Your task to perform on an android device: manage bookmarks in the chrome app Image 0: 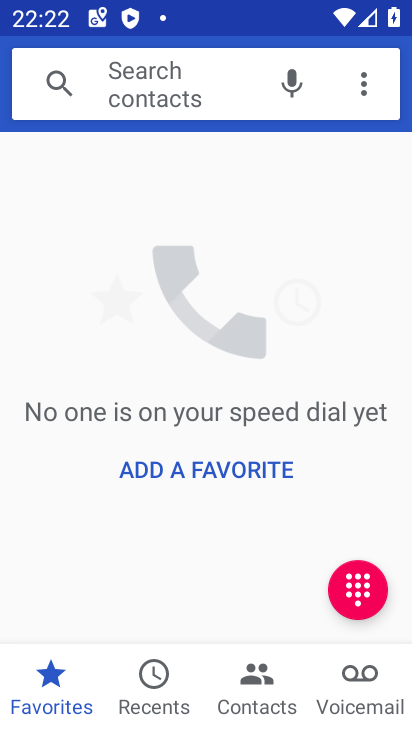
Step 0: press home button
Your task to perform on an android device: manage bookmarks in the chrome app Image 1: 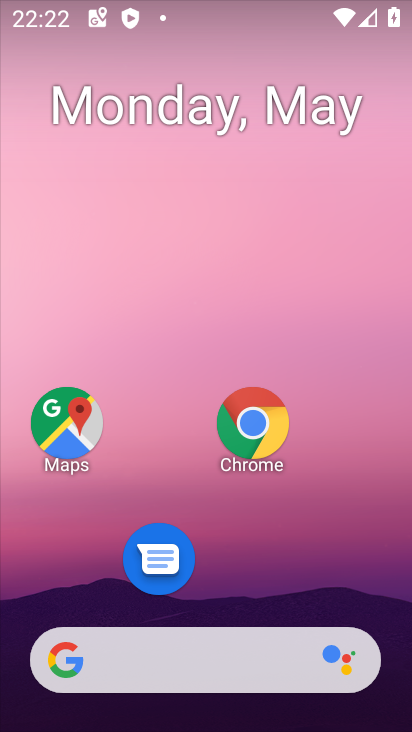
Step 1: click (249, 413)
Your task to perform on an android device: manage bookmarks in the chrome app Image 2: 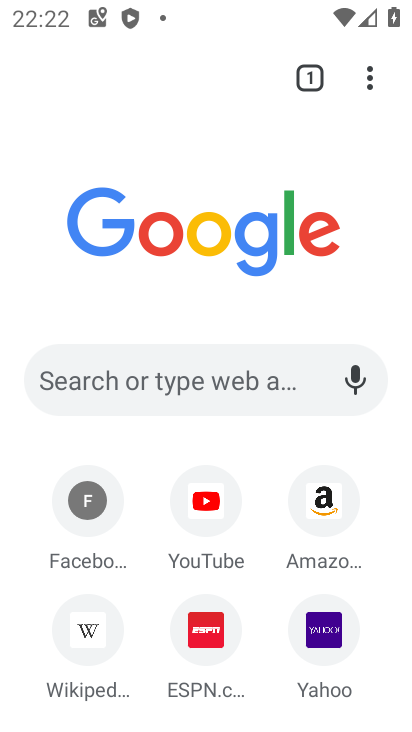
Step 2: click (371, 82)
Your task to perform on an android device: manage bookmarks in the chrome app Image 3: 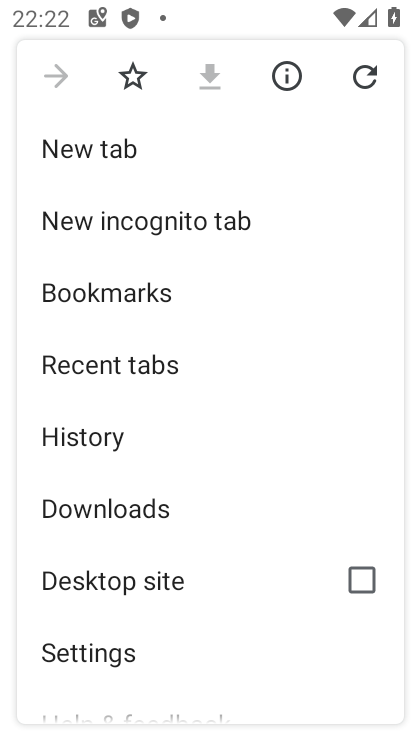
Step 3: click (132, 295)
Your task to perform on an android device: manage bookmarks in the chrome app Image 4: 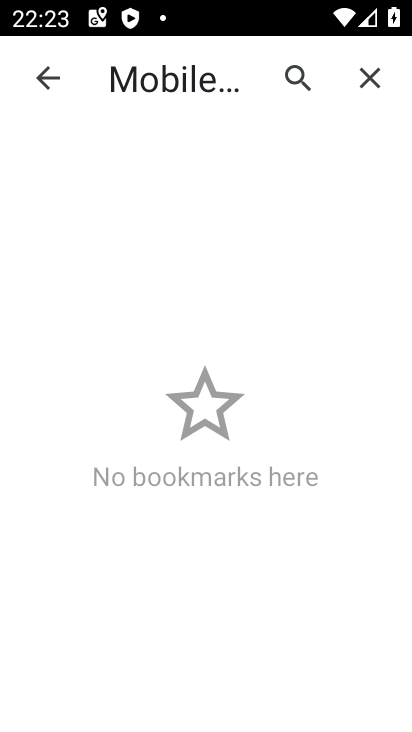
Step 4: task complete